Your task to perform on an android device: Go to internet settings Image 0: 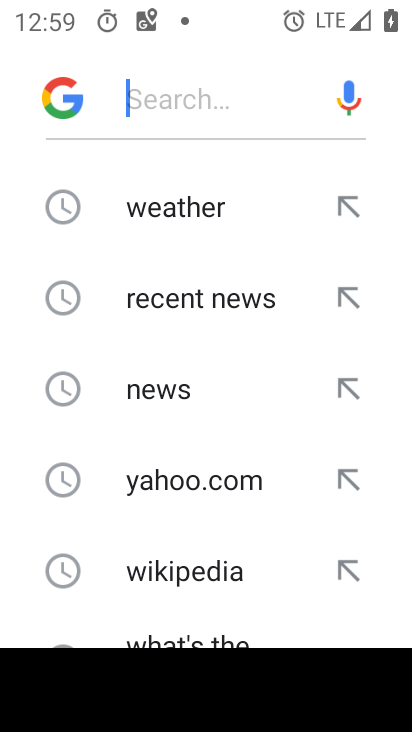
Step 0: press home button
Your task to perform on an android device: Go to internet settings Image 1: 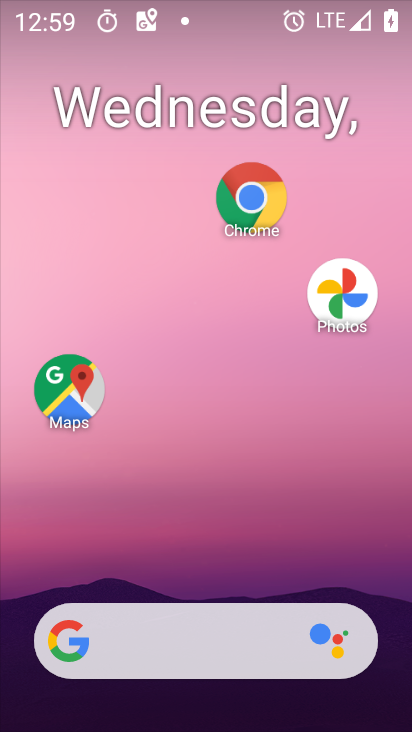
Step 1: drag from (255, 570) to (403, 560)
Your task to perform on an android device: Go to internet settings Image 2: 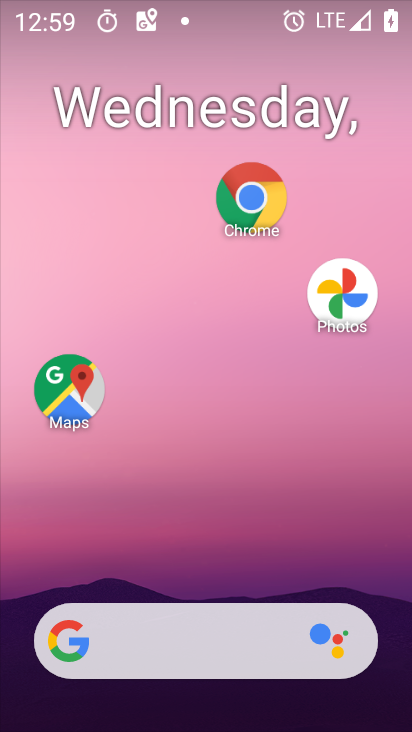
Step 2: drag from (252, 667) to (267, 162)
Your task to perform on an android device: Go to internet settings Image 3: 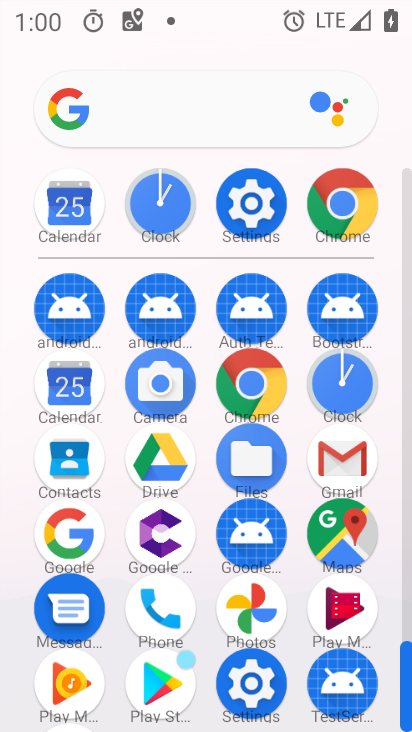
Step 3: click (257, 207)
Your task to perform on an android device: Go to internet settings Image 4: 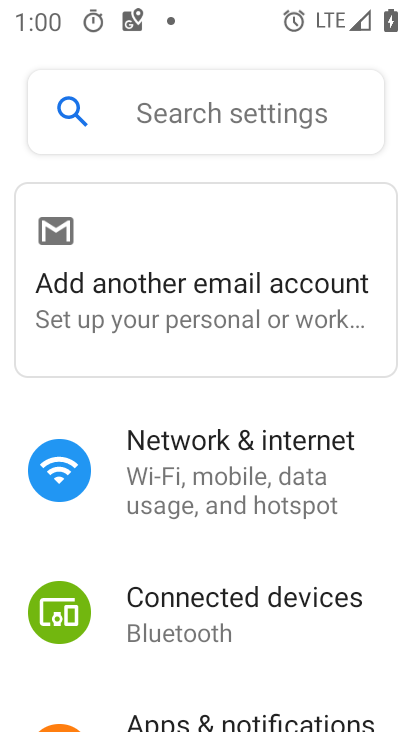
Step 4: click (239, 480)
Your task to perform on an android device: Go to internet settings Image 5: 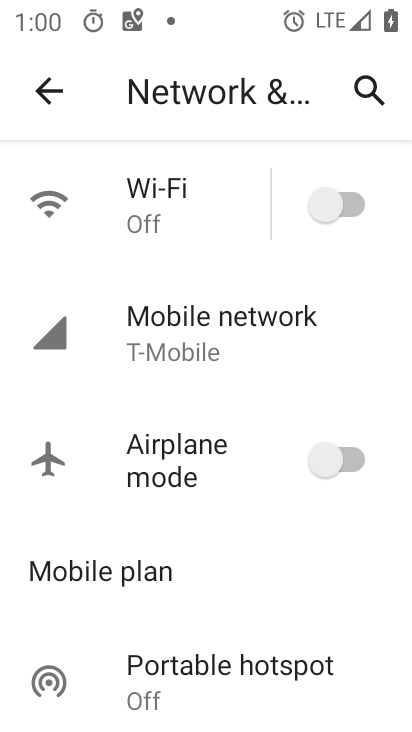
Step 5: click (193, 325)
Your task to perform on an android device: Go to internet settings Image 6: 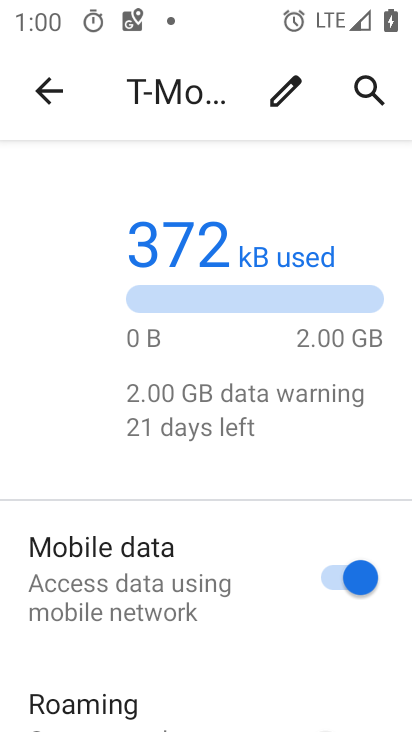
Step 6: task complete